Your task to perform on an android device: stop showing notifications on the lock screen Image 0: 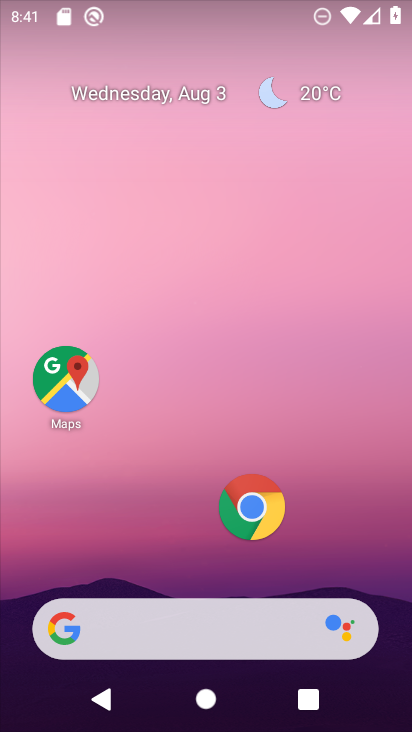
Step 0: drag from (180, 552) to (247, 7)
Your task to perform on an android device: stop showing notifications on the lock screen Image 1: 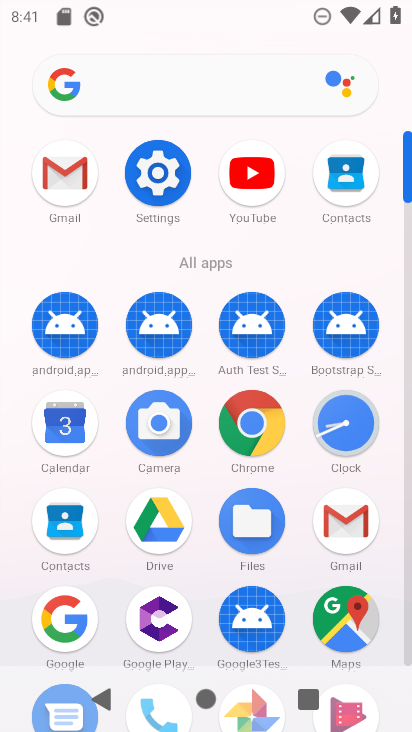
Step 1: click (157, 174)
Your task to perform on an android device: stop showing notifications on the lock screen Image 2: 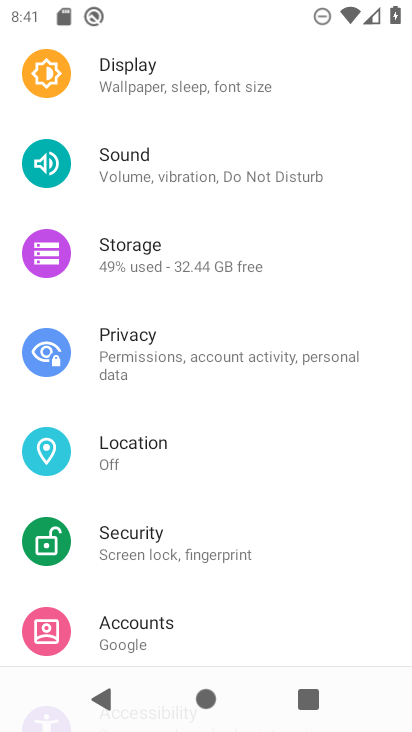
Step 2: drag from (138, 564) to (113, 634)
Your task to perform on an android device: stop showing notifications on the lock screen Image 3: 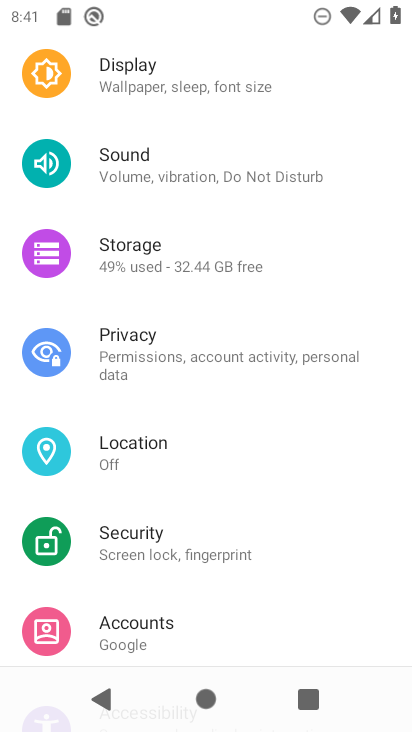
Step 3: drag from (161, 172) to (129, 547)
Your task to perform on an android device: stop showing notifications on the lock screen Image 4: 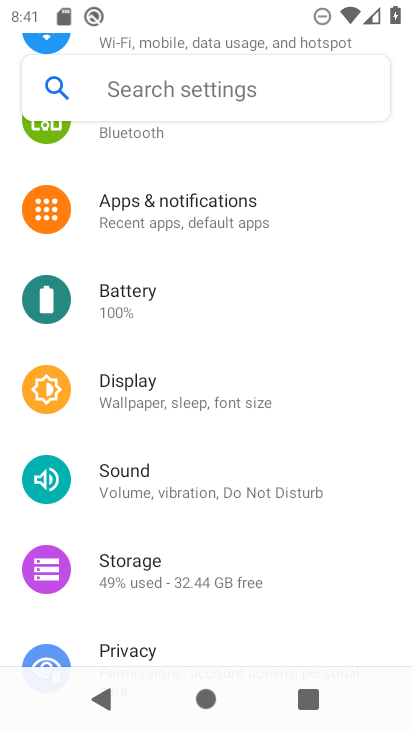
Step 4: drag from (182, 173) to (152, 435)
Your task to perform on an android device: stop showing notifications on the lock screen Image 5: 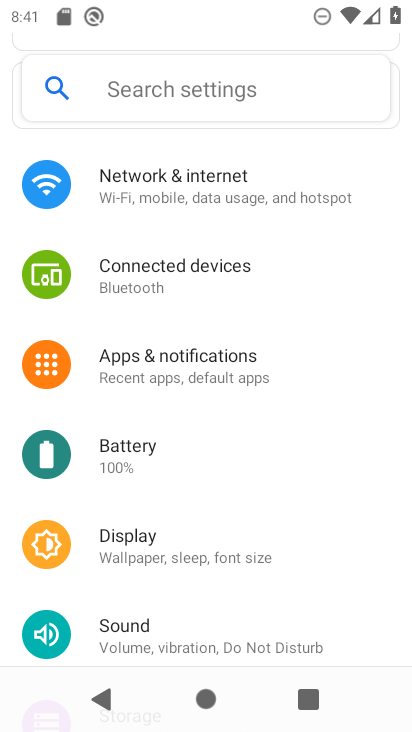
Step 5: click (169, 356)
Your task to perform on an android device: stop showing notifications on the lock screen Image 6: 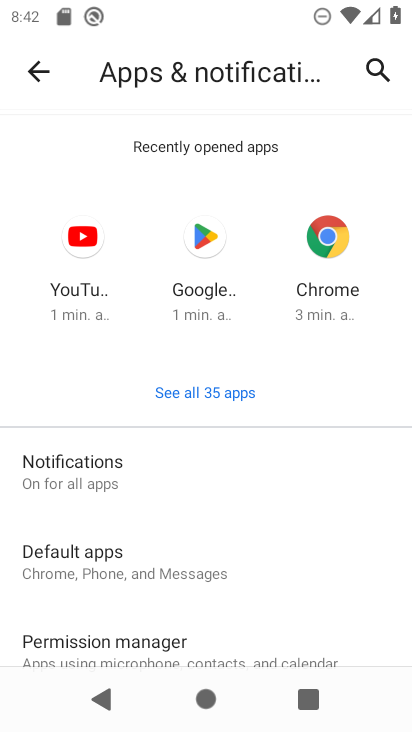
Step 6: click (106, 471)
Your task to perform on an android device: stop showing notifications on the lock screen Image 7: 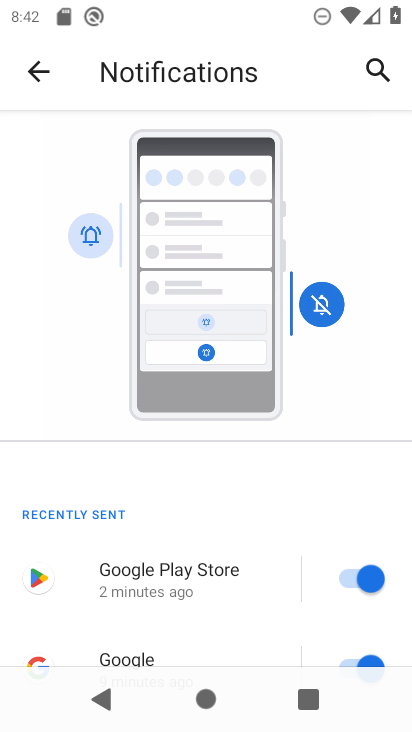
Step 7: drag from (223, 410) to (264, 251)
Your task to perform on an android device: stop showing notifications on the lock screen Image 8: 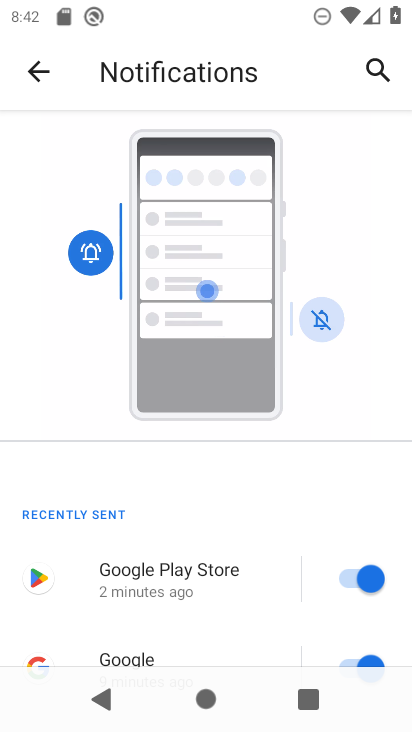
Step 8: drag from (210, 357) to (244, 274)
Your task to perform on an android device: stop showing notifications on the lock screen Image 9: 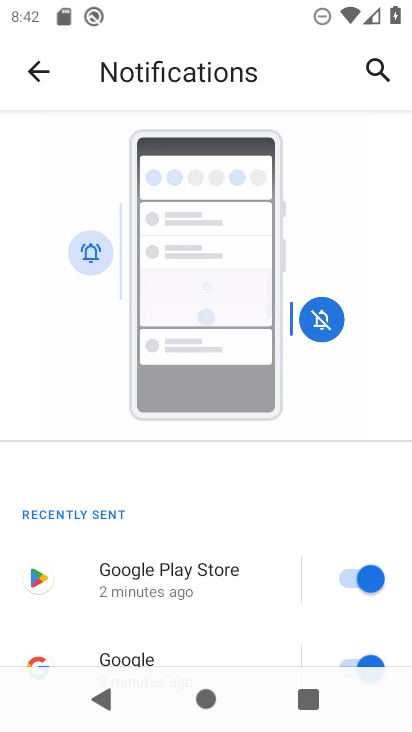
Step 9: drag from (163, 613) to (258, 213)
Your task to perform on an android device: stop showing notifications on the lock screen Image 10: 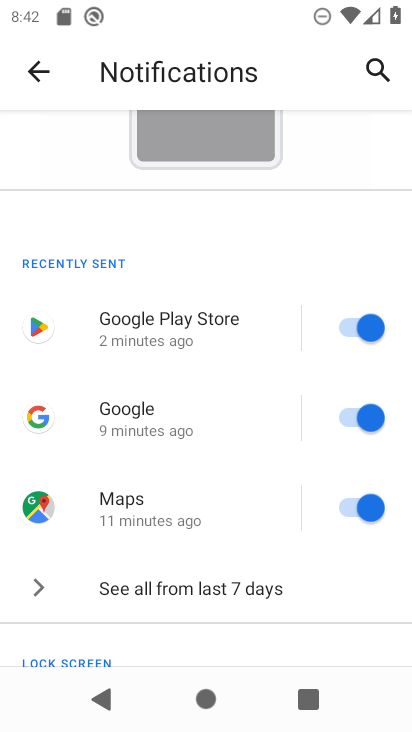
Step 10: drag from (224, 462) to (261, 253)
Your task to perform on an android device: stop showing notifications on the lock screen Image 11: 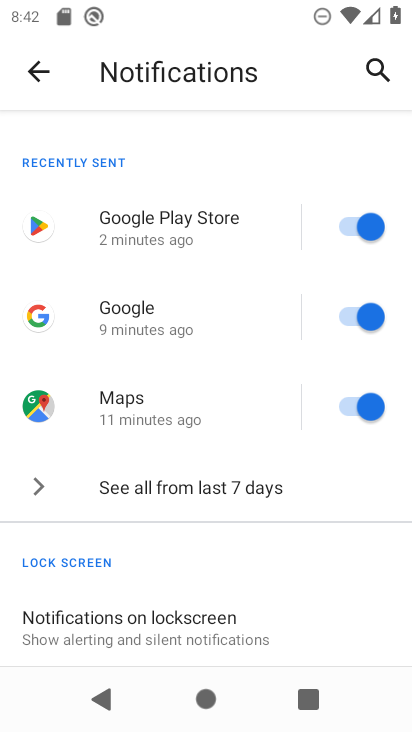
Step 11: click (84, 636)
Your task to perform on an android device: stop showing notifications on the lock screen Image 12: 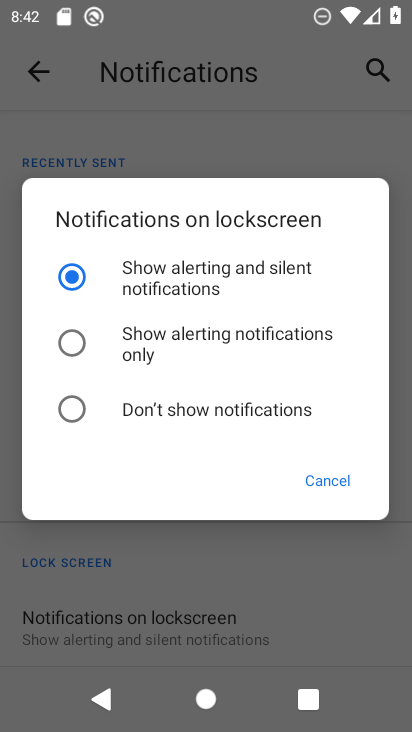
Step 12: click (77, 409)
Your task to perform on an android device: stop showing notifications on the lock screen Image 13: 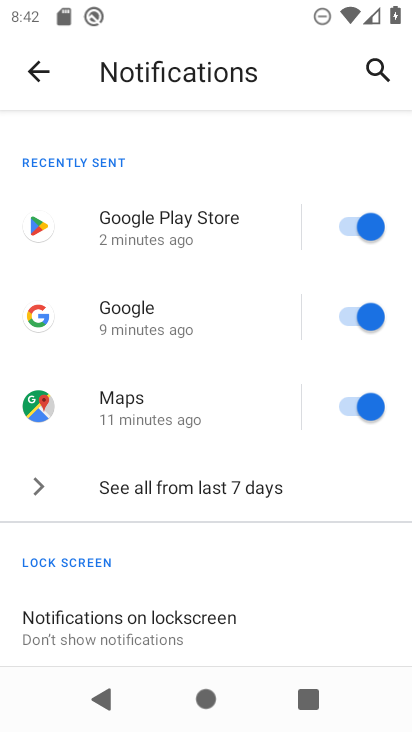
Step 13: task complete